Your task to perform on an android device: How much does a 2 bedroom apartment rent for in Austin? Image 0: 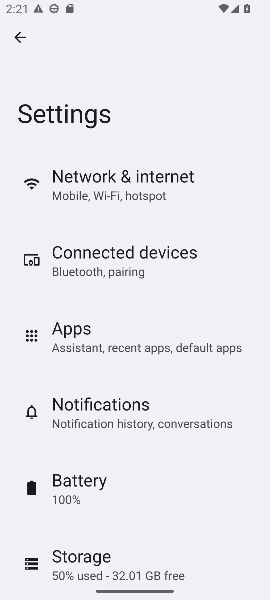
Step 0: press home button
Your task to perform on an android device: How much does a 2 bedroom apartment rent for in Austin? Image 1: 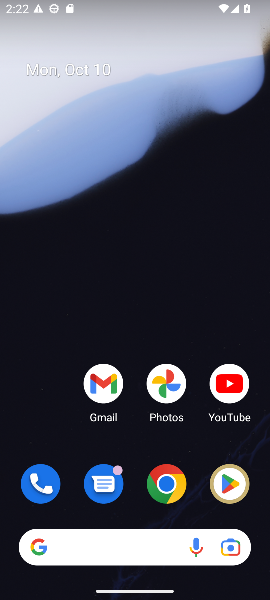
Step 1: click (163, 468)
Your task to perform on an android device: How much does a 2 bedroom apartment rent for in Austin? Image 2: 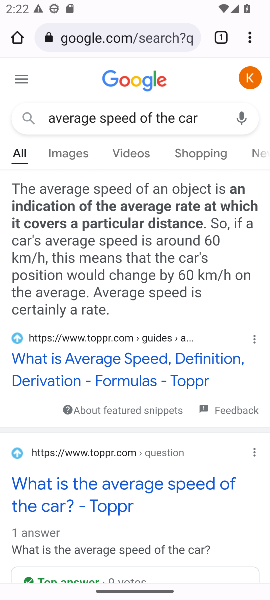
Step 2: click (132, 46)
Your task to perform on an android device: How much does a 2 bedroom apartment rent for in Austin? Image 3: 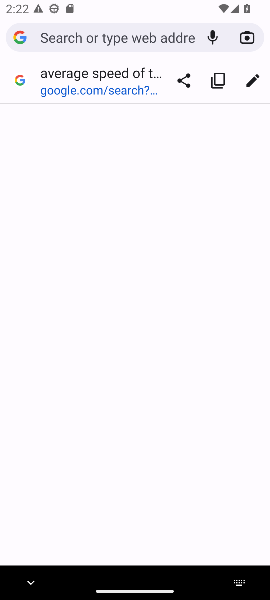
Step 3: type "2 bedroom apartment rent for in Austin?"
Your task to perform on an android device: How much does a 2 bedroom apartment rent for in Austin? Image 4: 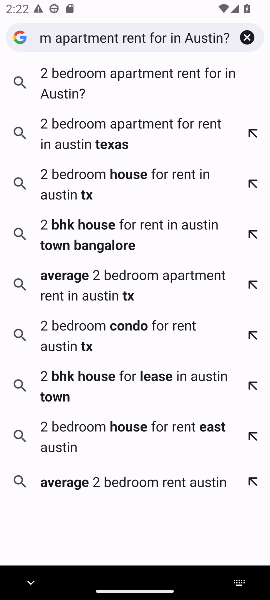
Step 4: click (75, 72)
Your task to perform on an android device: How much does a 2 bedroom apartment rent for in Austin? Image 5: 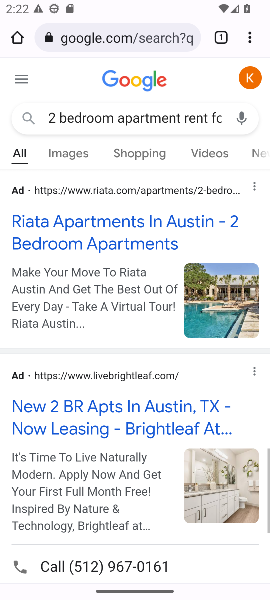
Step 5: click (135, 415)
Your task to perform on an android device: How much does a 2 bedroom apartment rent for in Austin? Image 6: 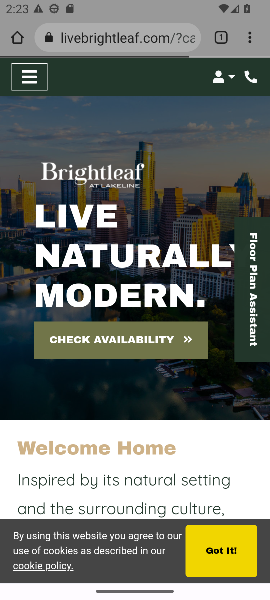
Step 6: drag from (176, 456) to (184, 101)
Your task to perform on an android device: How much does a 2 bedroom apartment rent for in Austin? Image 7: 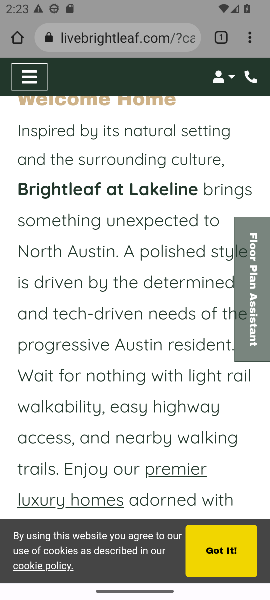
Step 7: drag from (177, 387) to (167, 13)
Your task to perform on an android device: How much does a 2 bedroom apartment rent for in Austin? Image 8: 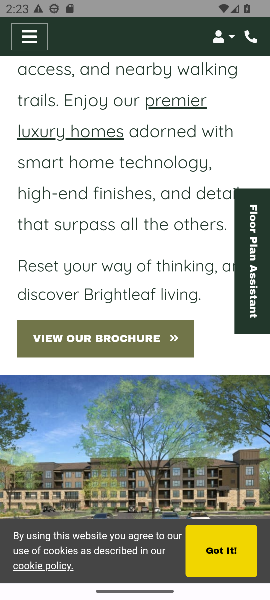
Step 8: drag from (209, 470) to (213, 0)
Your task to perform on an android device: How much does a 2 bedroom apartment rent for in Austin? Image 9: 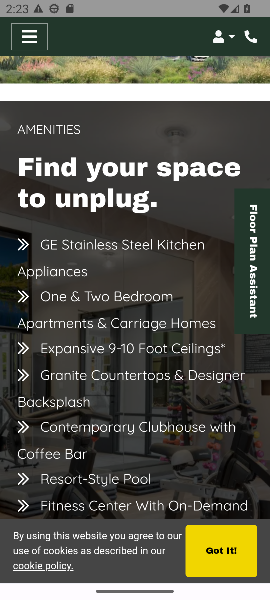
Step 9: press back button
Your task to perform on an android device: How much does a 2 bedroom apartment rent for in Austin? Image 10: 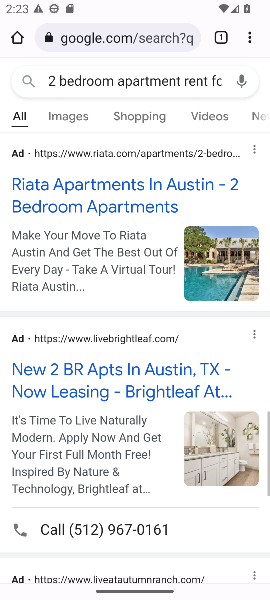
Step 10: drag from (186, 443) to (173, 197)
Your task to perform on an android device: How much does a 2 bedroom apartment rent for in Austin? Image 11: 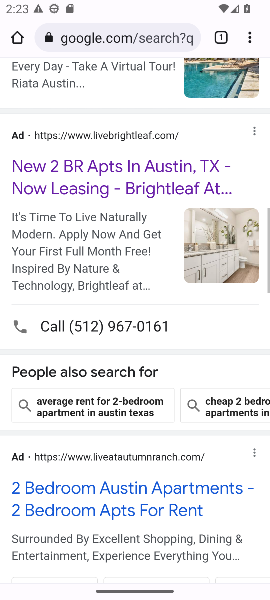
Step 11: drag from (210, 520) to (188, 120)
Your task to perform on an android device: How much does a 2 bedroom apartment rent for in Austin? Image 12: 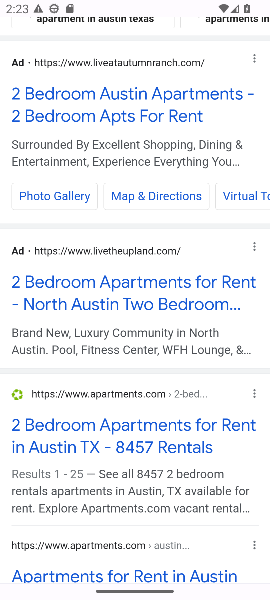
Step 12: drag from (197, 414) to (184, 131)
Your task to perform on an android device: How much does a 2 bedroom apartment rent for in Austin? Image 13: 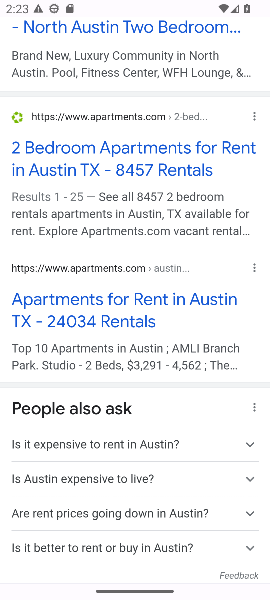
Step 13: click (107, 294)
Your task to perform on an android device: How much does a 2 bedroom apartment rent for in Austin? Image 14: 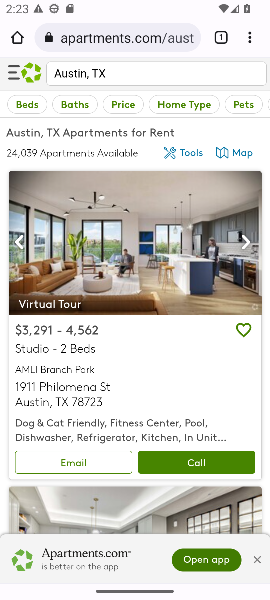
Step 14: task complete